Your task to perform on an android device: Go to internet settings Image 0: 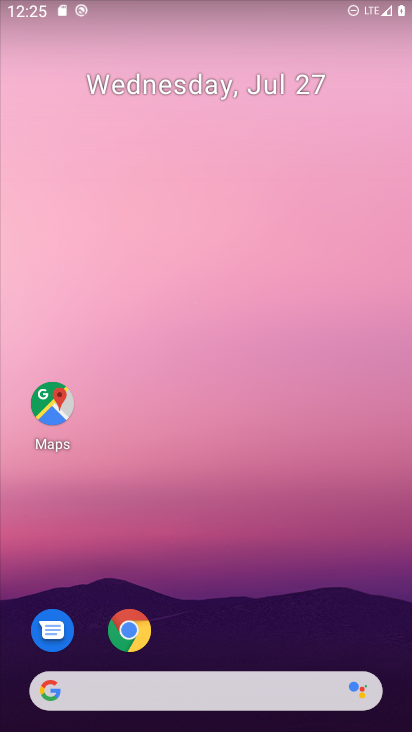
Step 0: drag from (374, 640) to (322, 116)
Your task to perform on an android device: Go to internet settings Image 1: 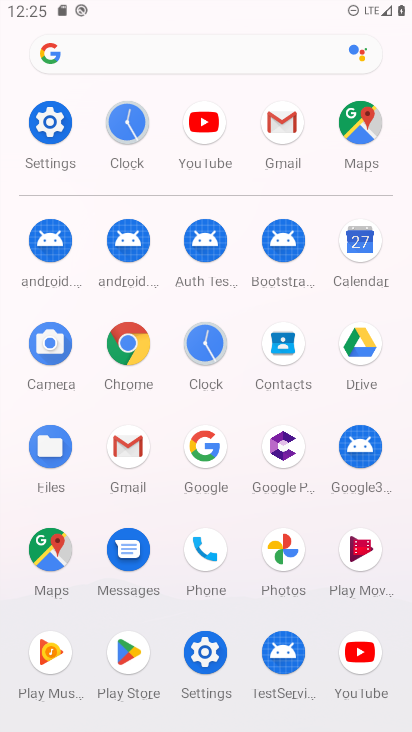
Step 1: click (205, 651)
Your task to perform on an android device: Go to internet settings Image 2: 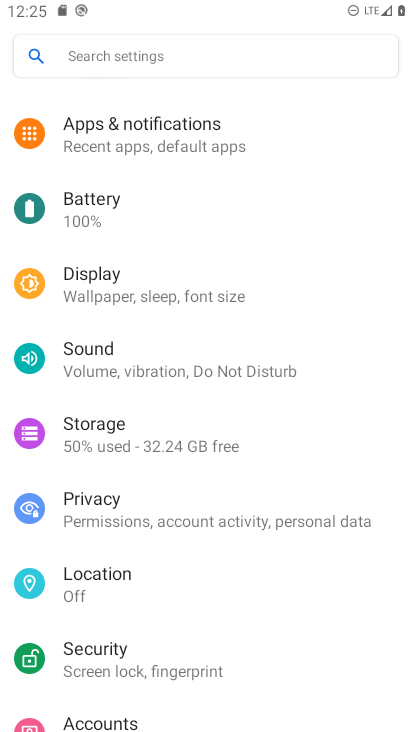
Step 2: drag from (306, 160) to (311, 503)
Your task to perform on an android device: Go to internet settings Image 3: 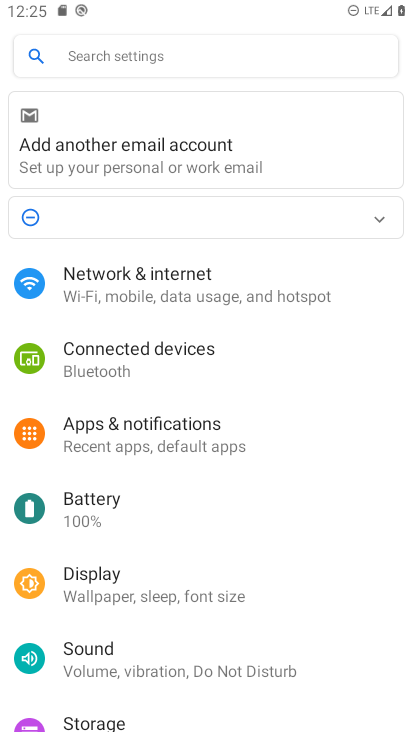
Step 3: click (101, 277)
Your task to perform on an android device: Go to internet settings Image 4: 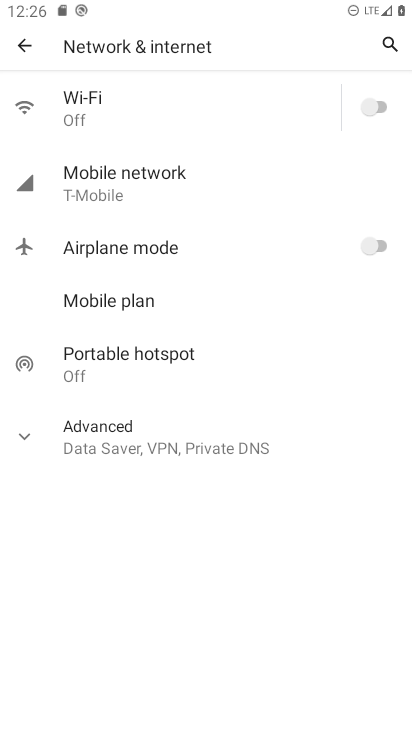
Step 4: click (72, 89)
Your task to perform on an android device: Go to internet settings Image 5: 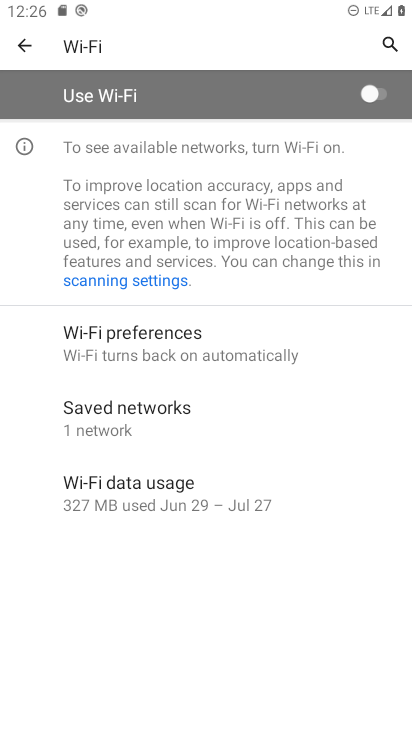
Step 5: task complete